Your task to perform on an android device: find which apps use the phone's location Image 0: 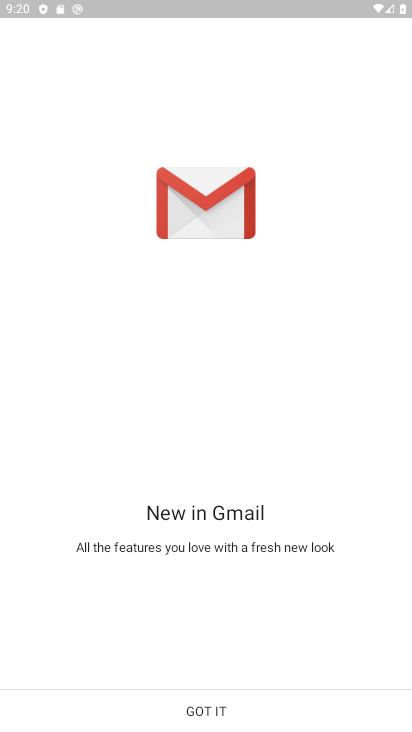
Step 0: click (205, 713)
Your task to perform on an android device: find which apps use the phone's location Image 1: 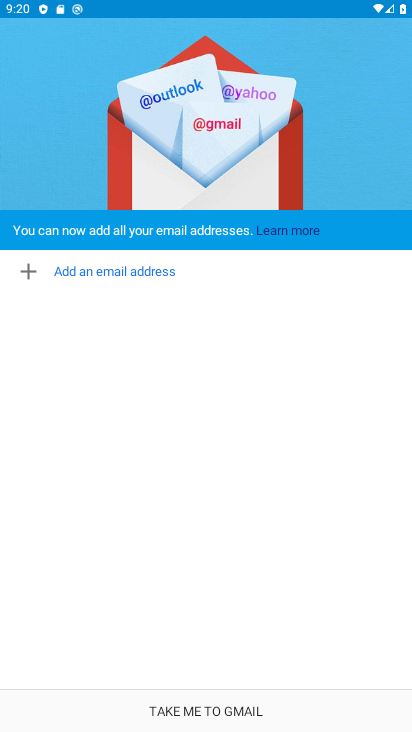
Step 1: press home button
Your task to perform on an android device: find which apps use the phone's location Image 2: 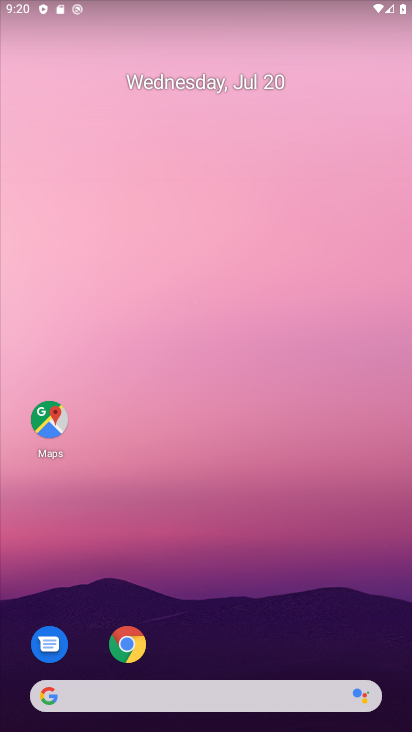
Step 2: drag from (269, 519) to (283, 112)
Your task to perform on an android device: find which apps use the phone's location Image 3: 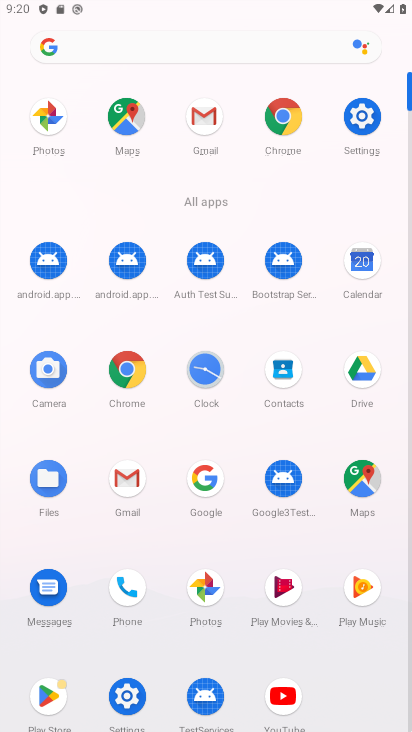
Step 3: click (360, 112)
Your task to perform on an android device: find which apps use the phone's location Image 4: 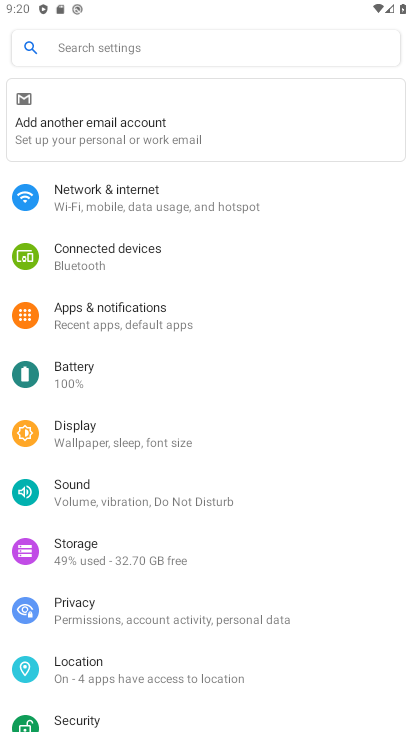
Step 4: click (72, 669)
Your task to perform on an android device: find which apps use the phone's location Image 5: 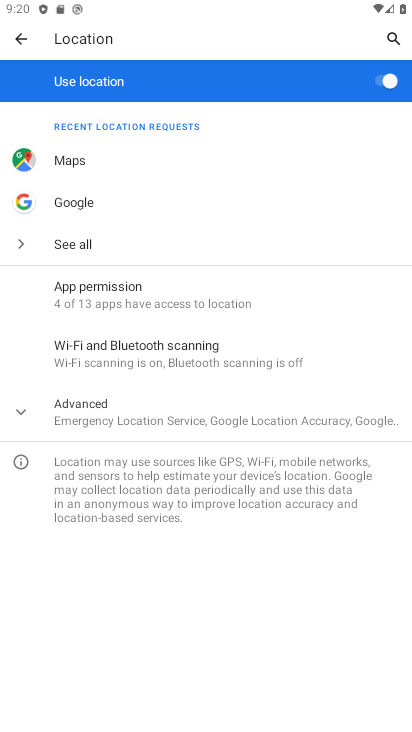
Step 5: click (84, 246)
Your task to perform on an android device: find which apps use the phone's location Image 6: 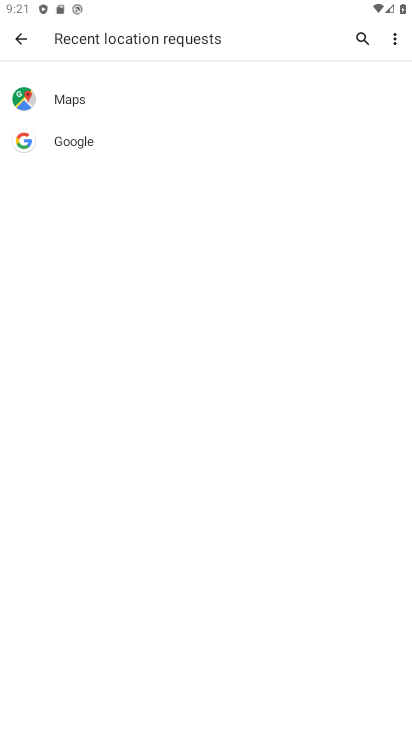
Step 6: task complete